Your task to perform on an android device: install app "Messages" Image 0: 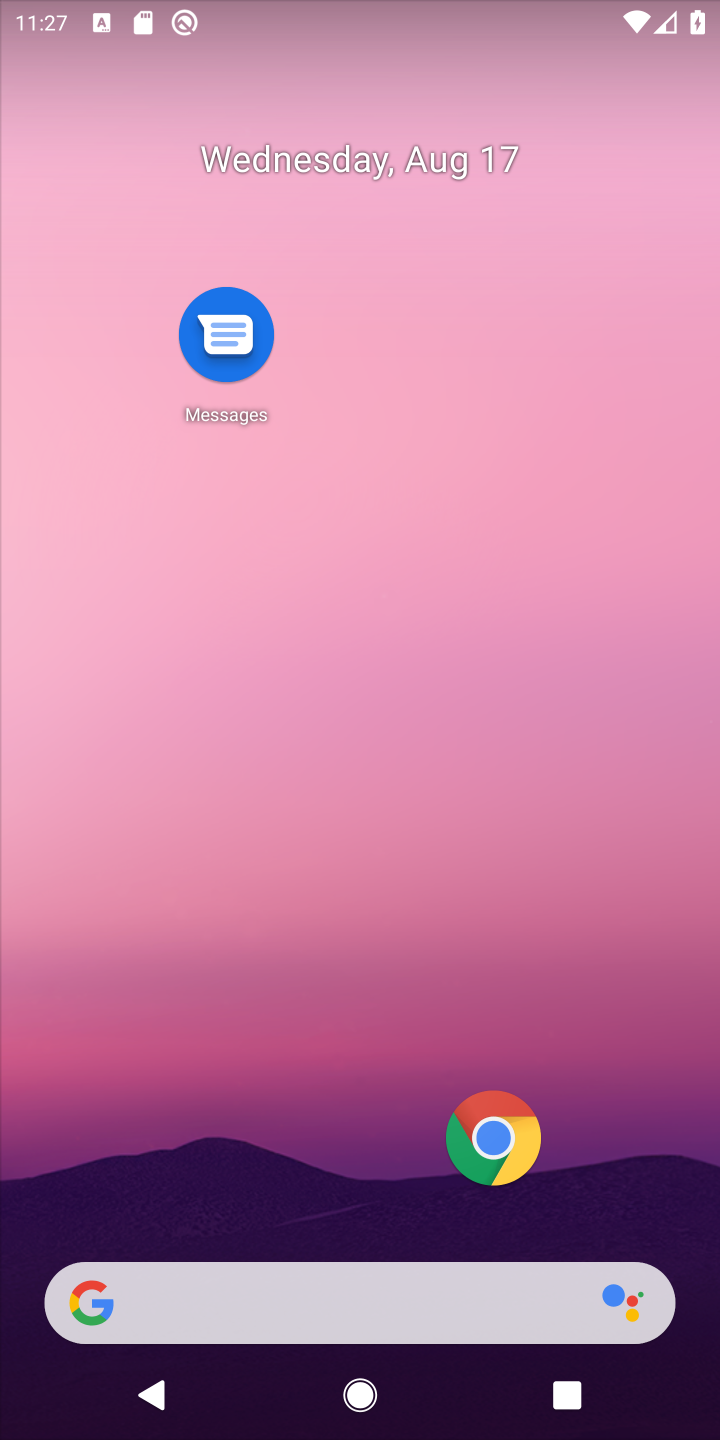
Step 0: drag from (315, 1217) to (506, 403)
Your task to perform on an android device: install app "Messages" Image 1: 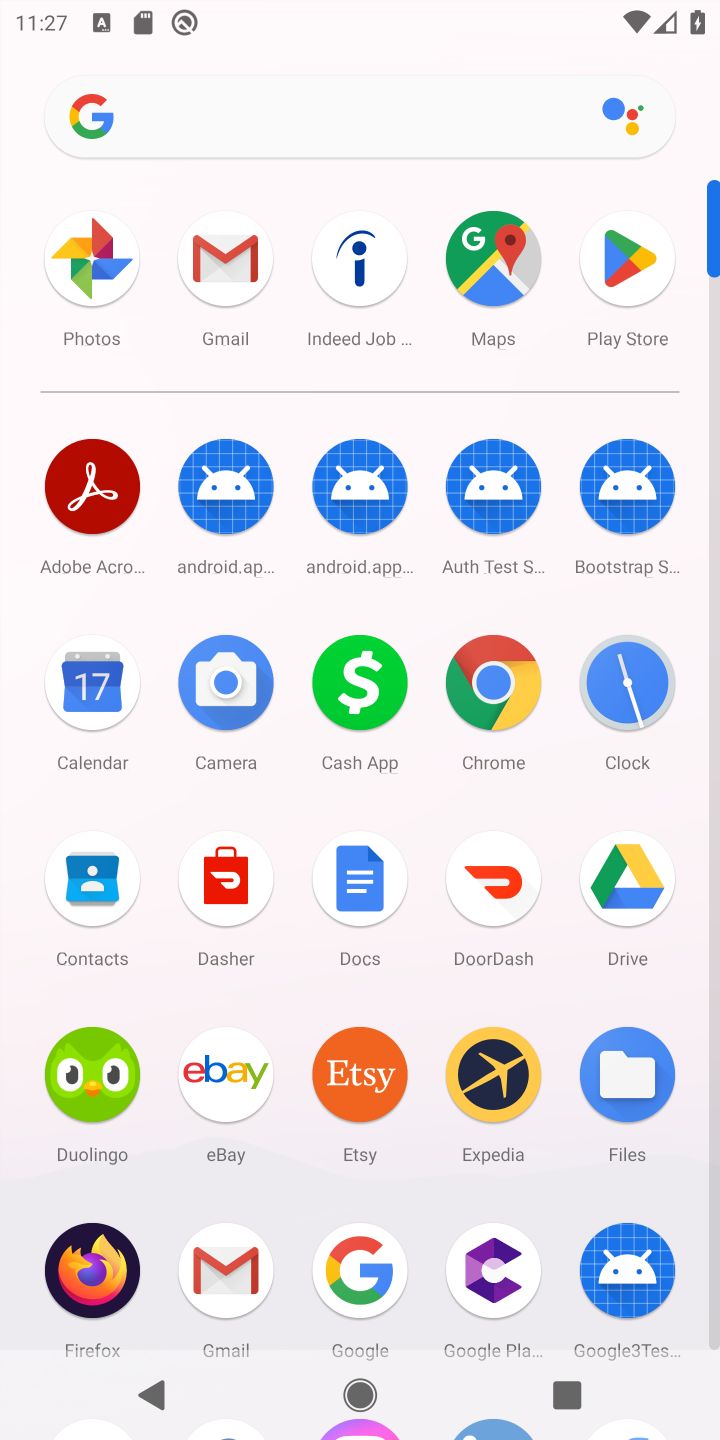
Step 1: click (624, 241)
Your task to perform on an android device: install app "Messages" Image 2: 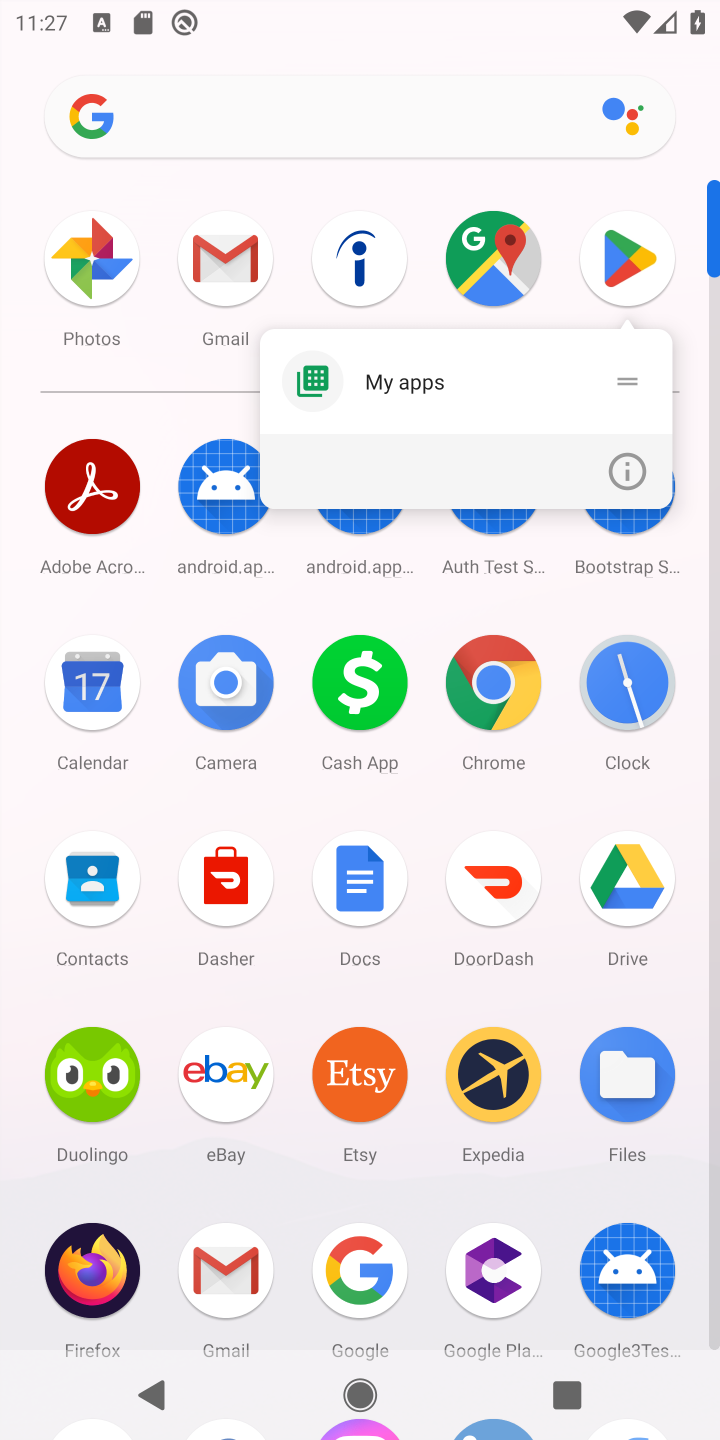
Step 2: click (624, 241)
Your task to perform on an android device: install app "Messages" Image 3: 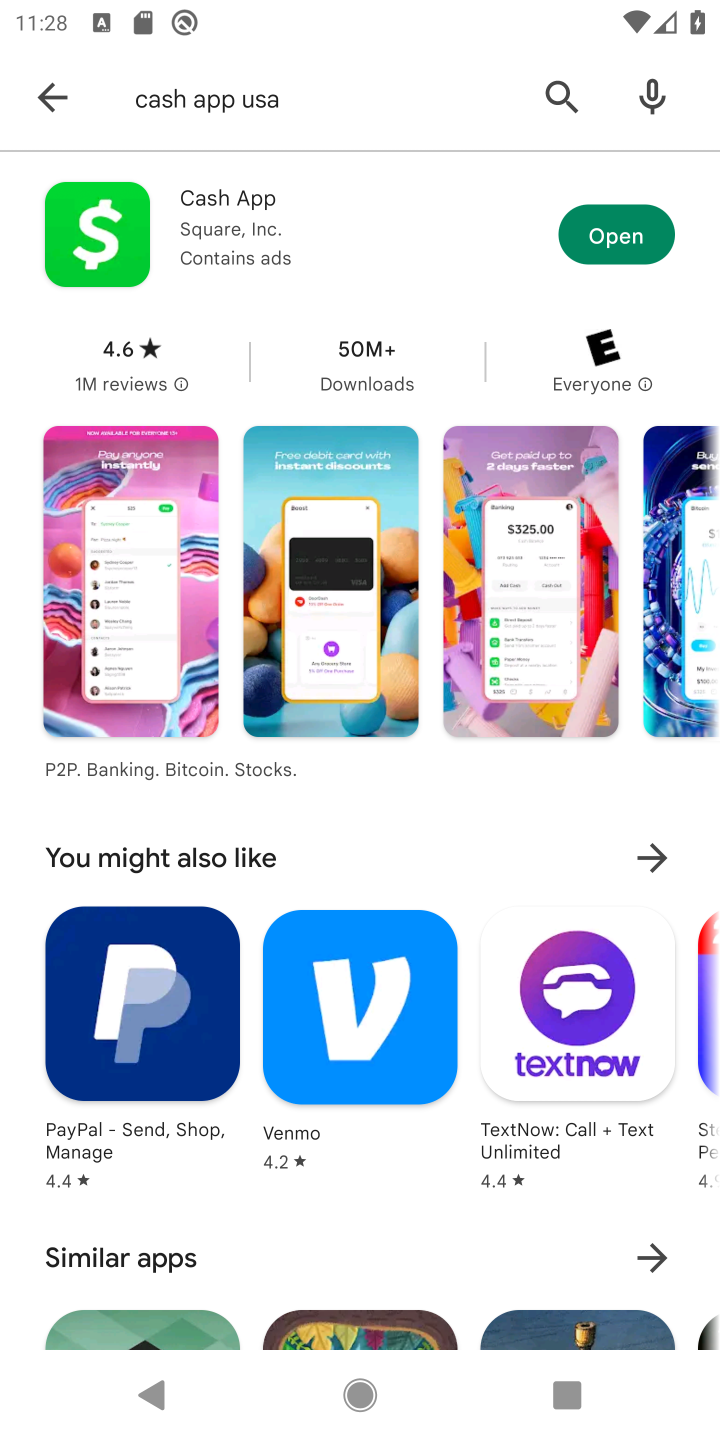
Step 3: click (43, 88)
Your task to perform on an android device: install app "Messages" Image 4: 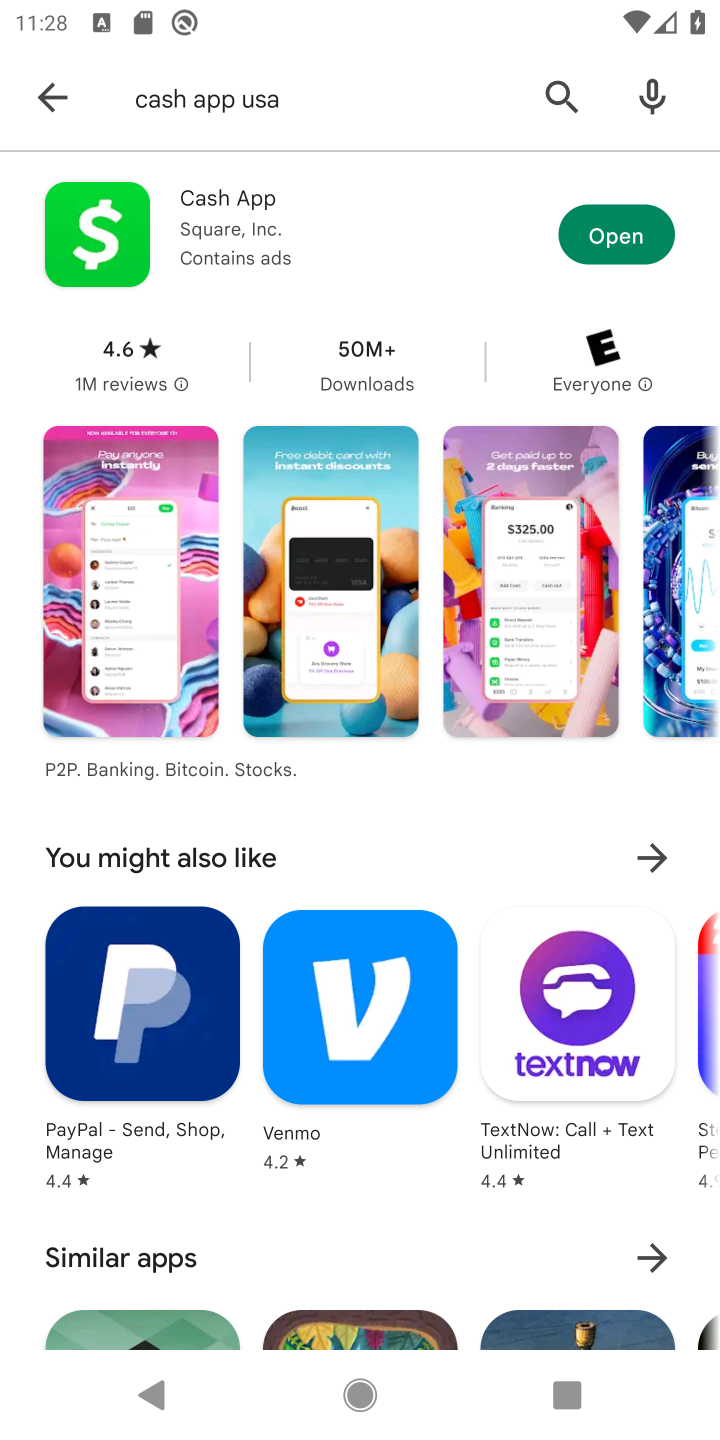
Step 4: click (58, 95)
Your task to perform on an android device: install app "Messages" Image 5: 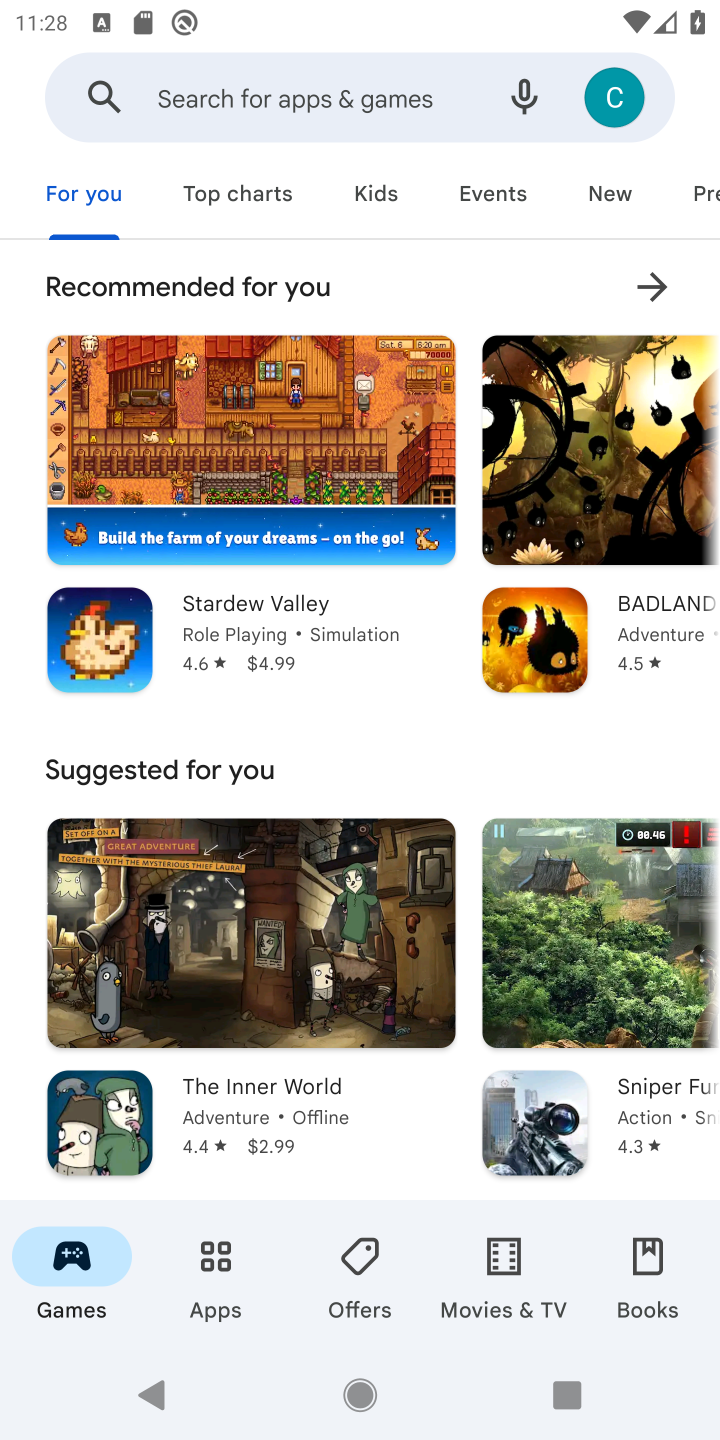
Step 5: click (363, 94)
Your task to perform on an android device: install app "Messages" Image 6: 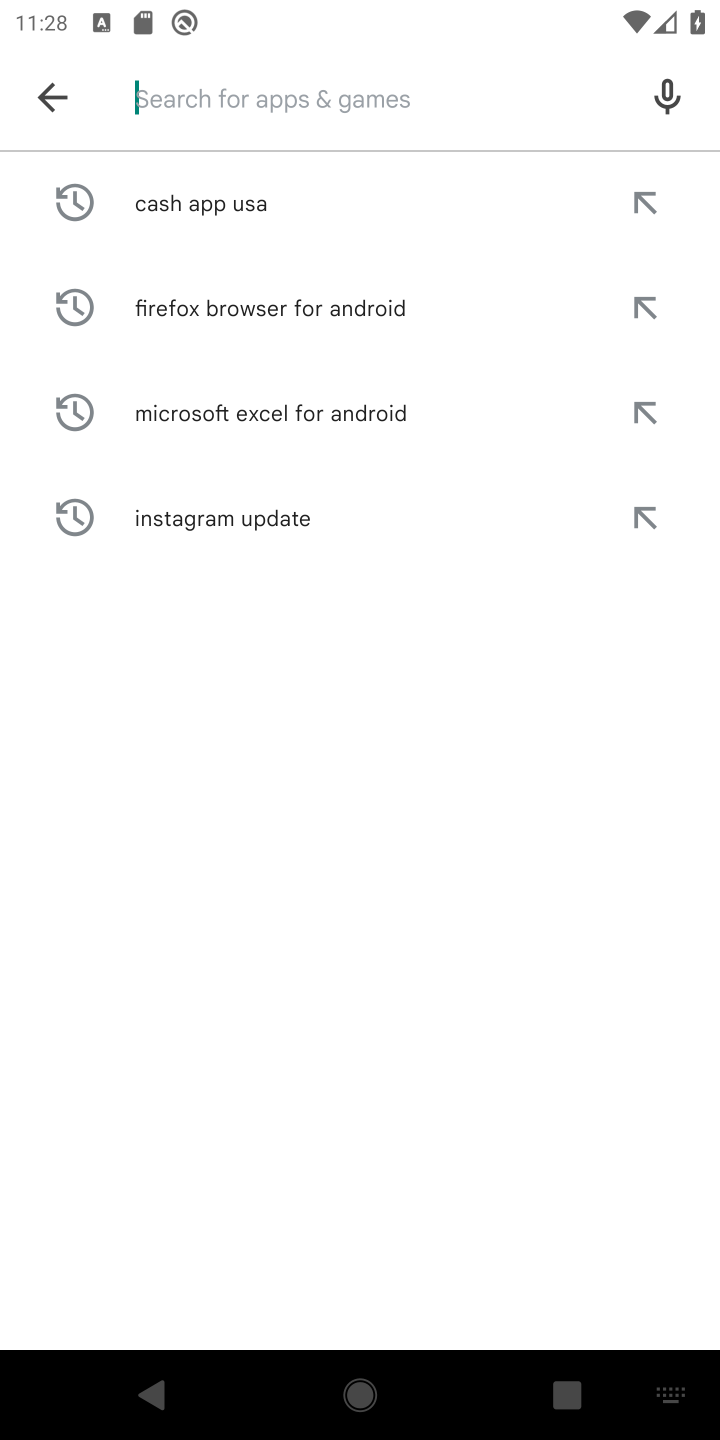
Step 6: type "Messages "
Your task to perform on an android device: install app "Messages" Image 7: 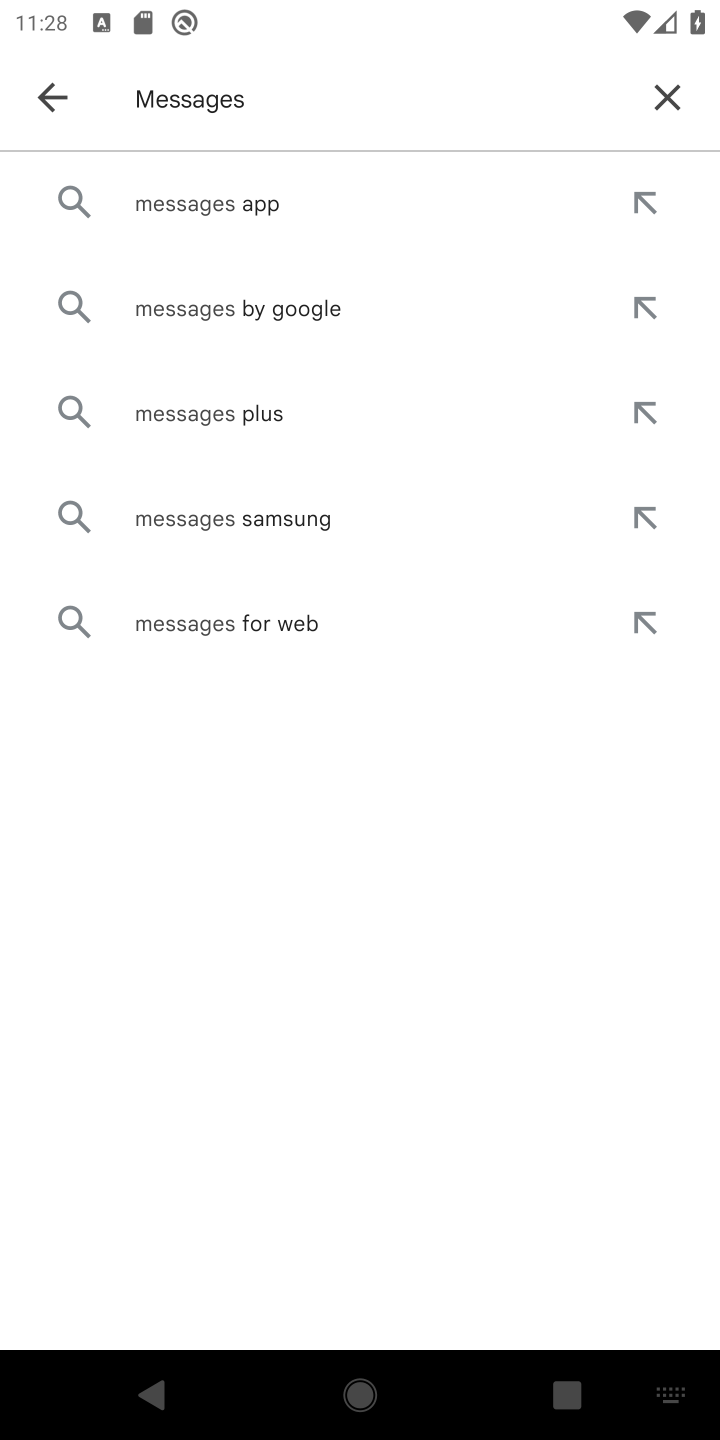
Step 7: click (246, 219)
Your task to perform on an android device: install app "Messages" Image 8: 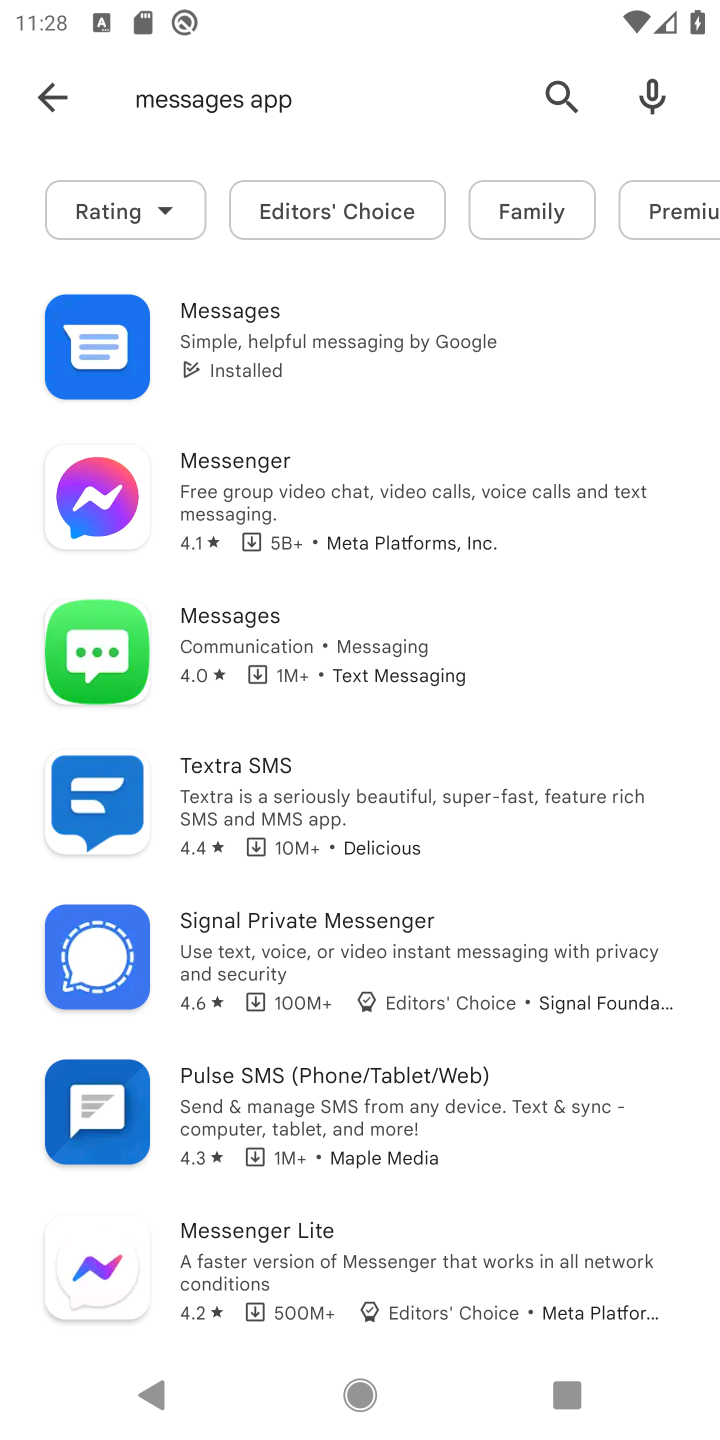
Step 8: click (234, 339)
Your task to perform on an android device: install app "Messages" Image 9: 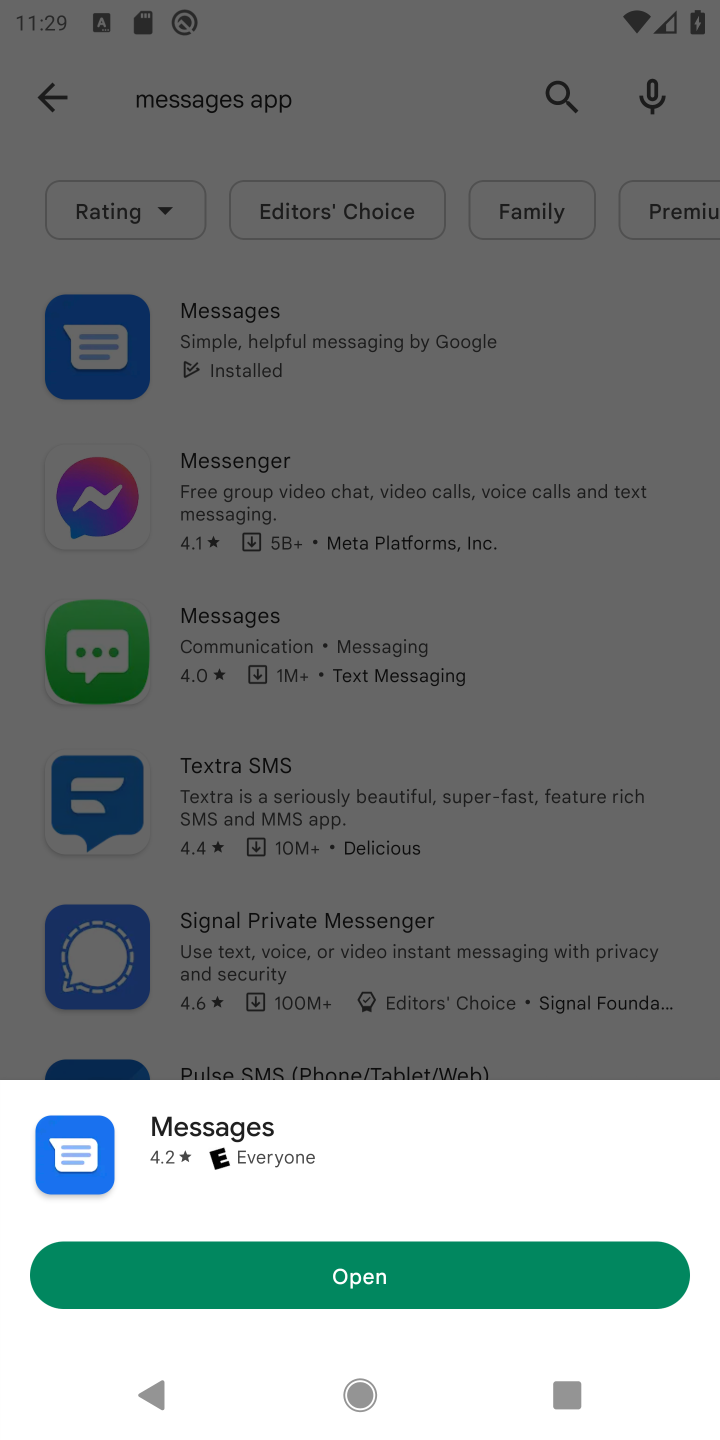
Step 9: click (274, 1254)
Your task to perform on an android device: install app "Messages" Image 10: 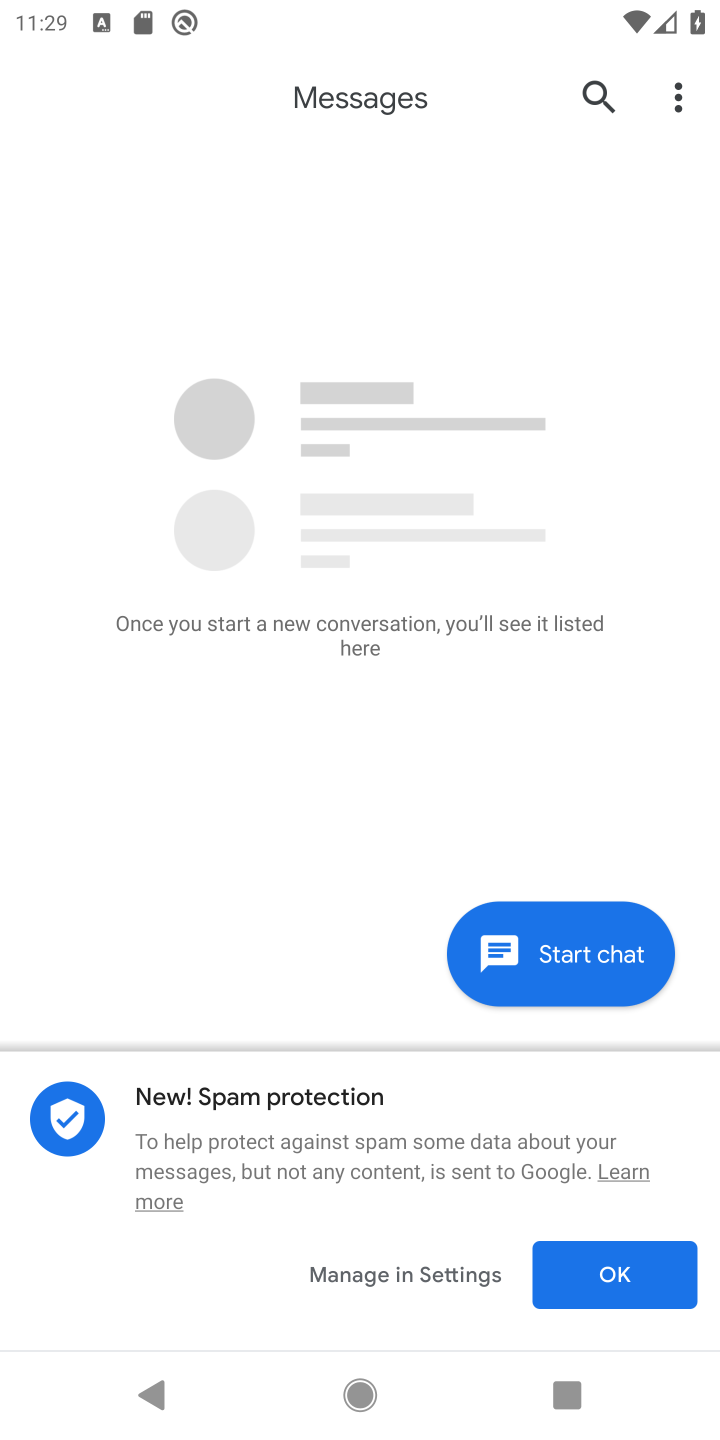
Step 10: task complete